Your task to perform on an android device: move a message to another label in the gmail app Image 0: 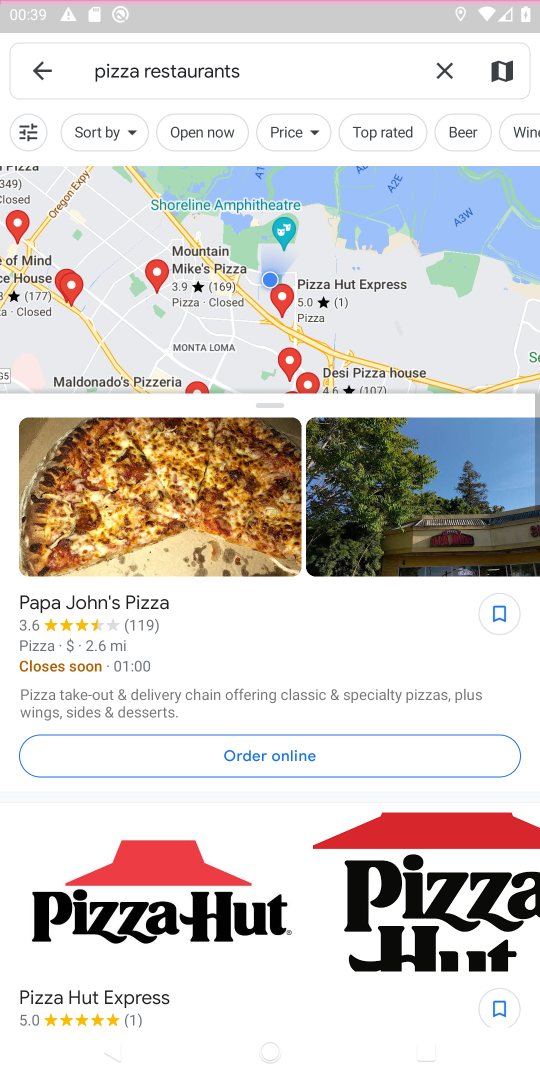
Step 0: press home button
Your task to perform on an android device: move a message to another label in the gmail app Image 1: 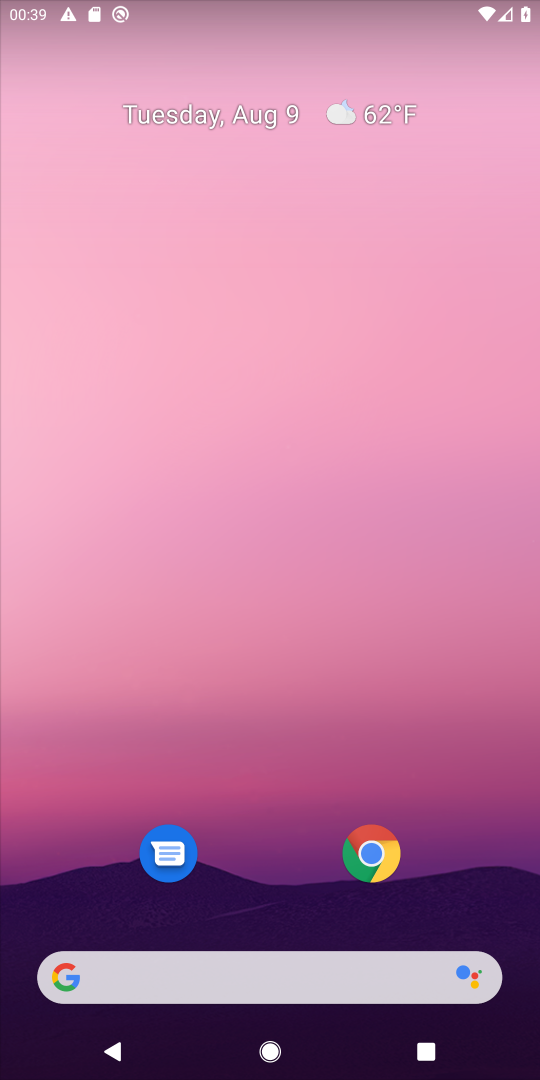
Step 1: drag from (277, 900) to (306, 90)
Your task to perform on an android device: move a message to another label in the gmail app Image 2: 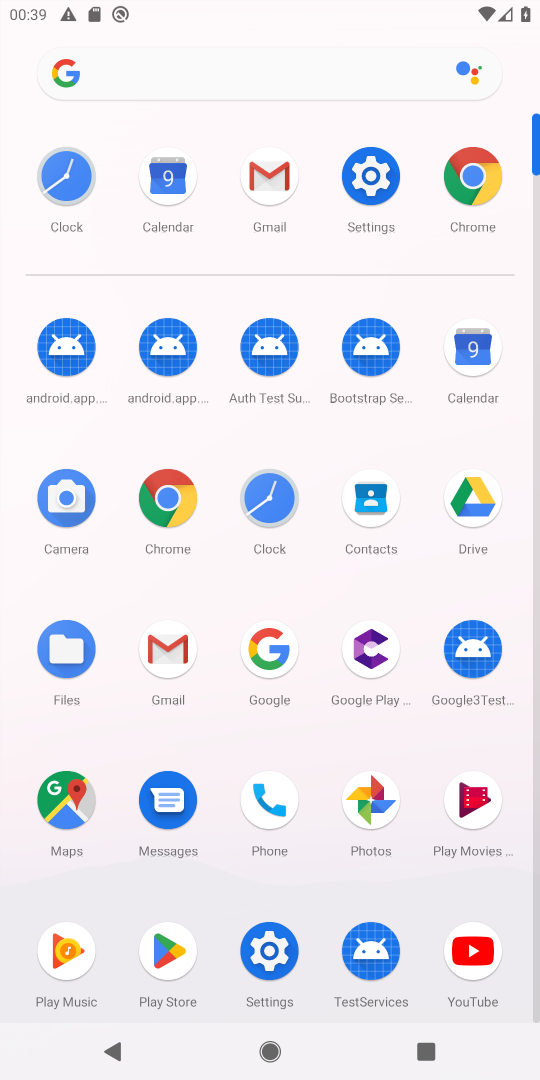
Step 2: click (161, 650)
Your task to perform on an android device: move a message to another label in the gmail app Image 3: 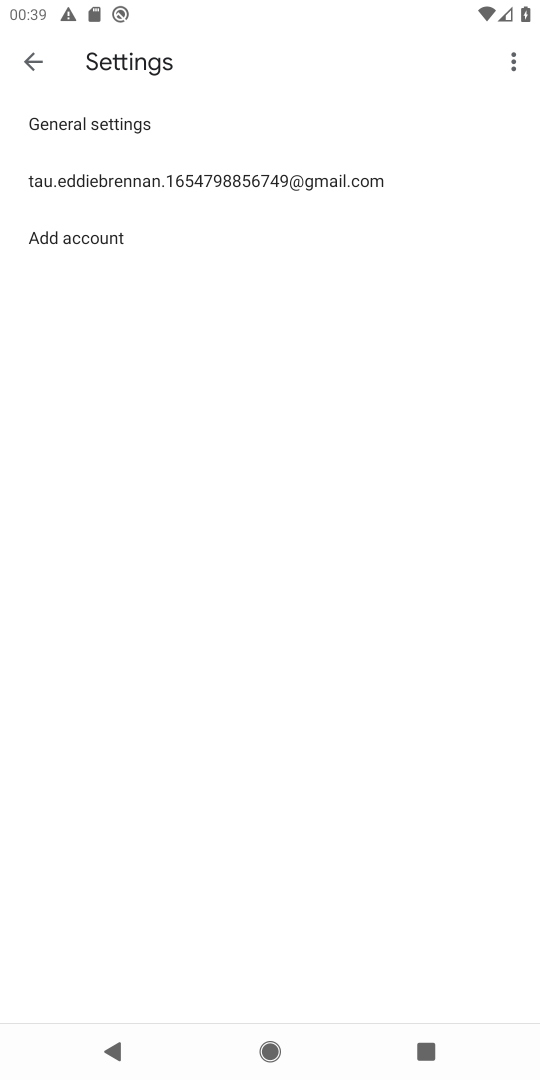
Step 3: click (21, 68)
Your task to perform on an android device: move a message to another label in the gmail app Image 4: 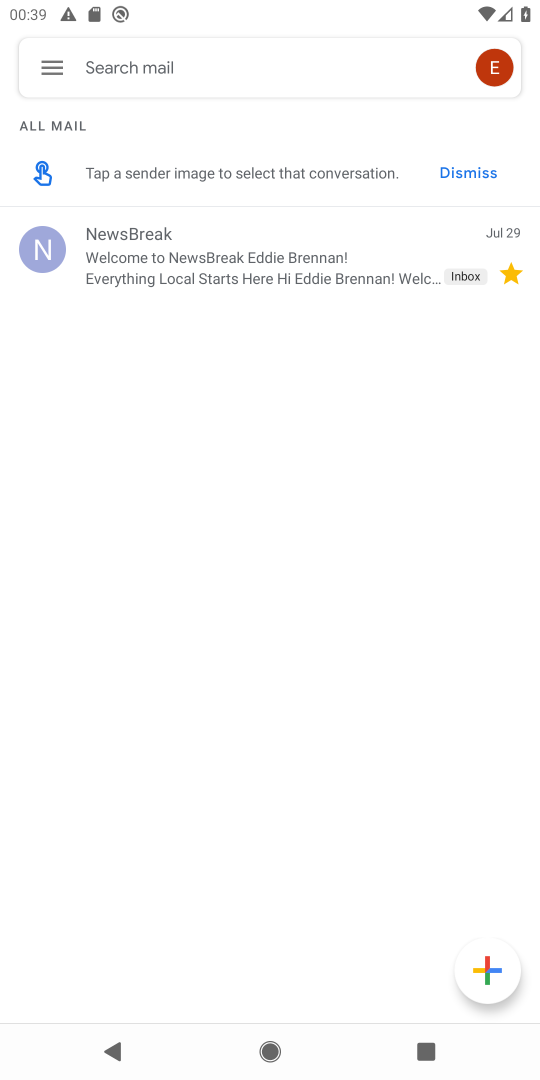
Step 4: click (216, 235)
Your task to perform on an android device: move a message to another label in the gmail app Image 5: 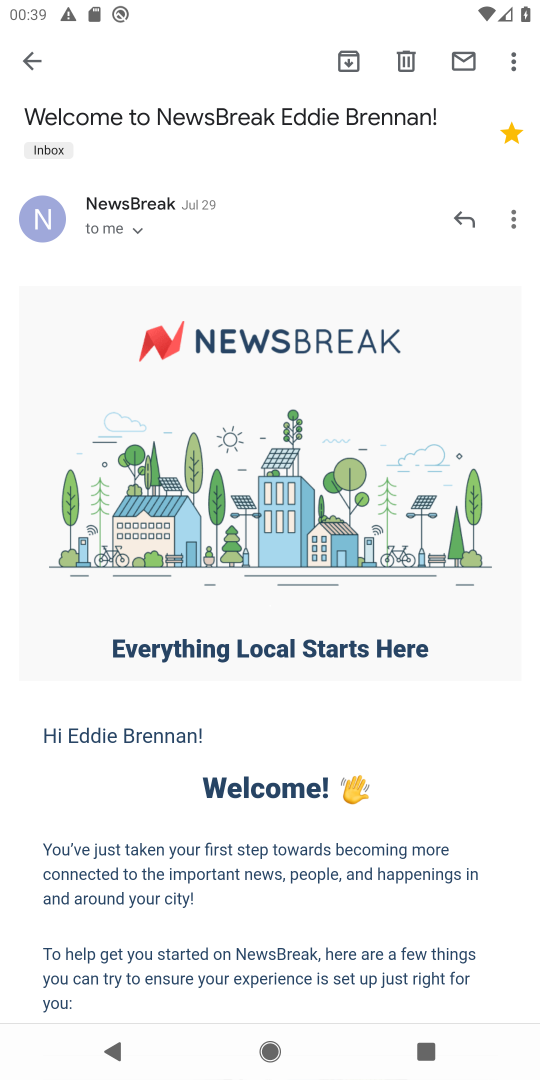
Step 5: click (511, 54)
Your task to perform on an android device: move a message to another label in the gmail app Image 6: 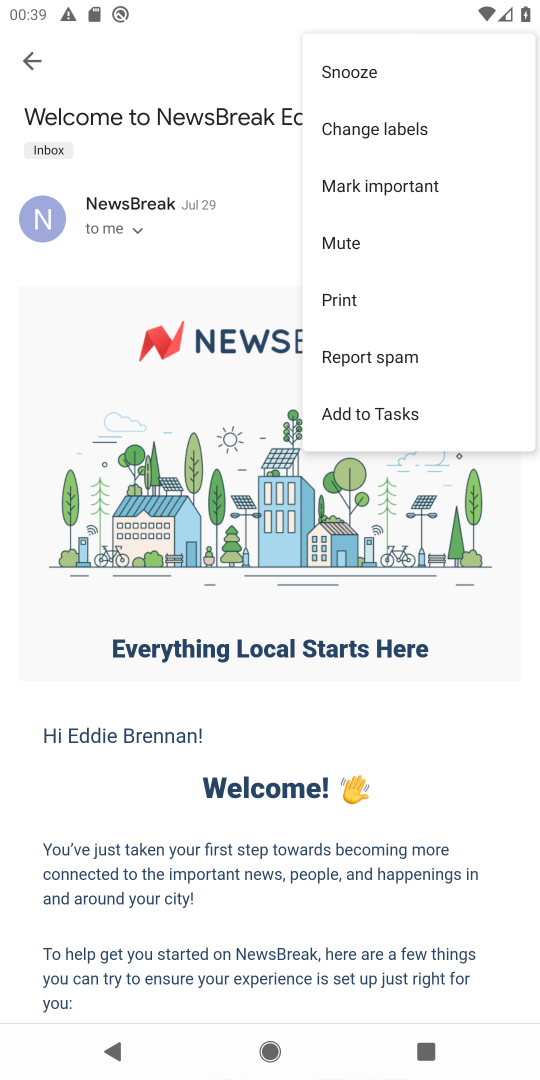
Step 6: click (394, 134)
Your task to perform on an android device: move a message to another label in the gmail app Image 7: 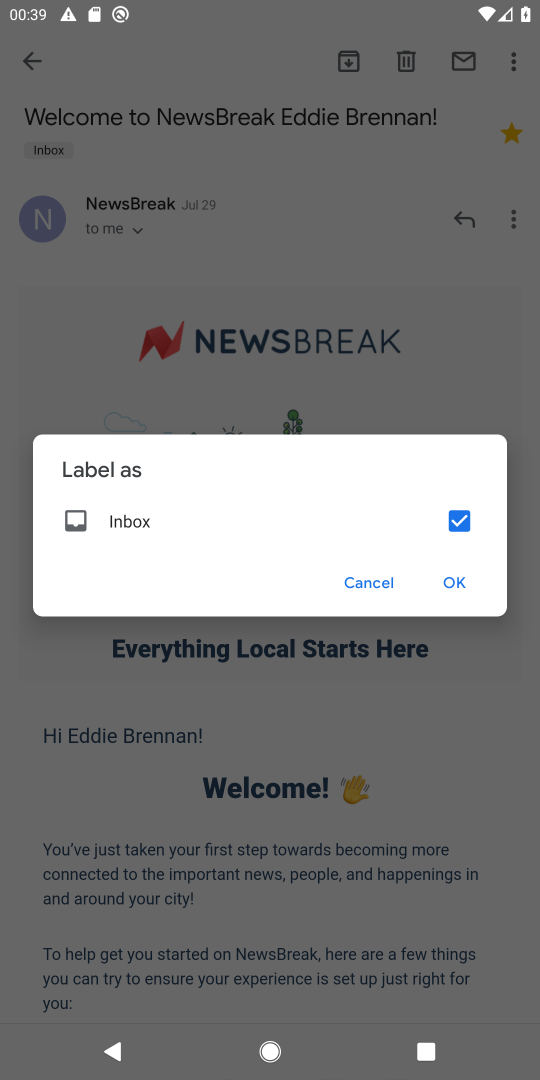
Step 7: click (473, 521)
Your task to perform on an android device: move a message to another label in the gmail app Image 8: 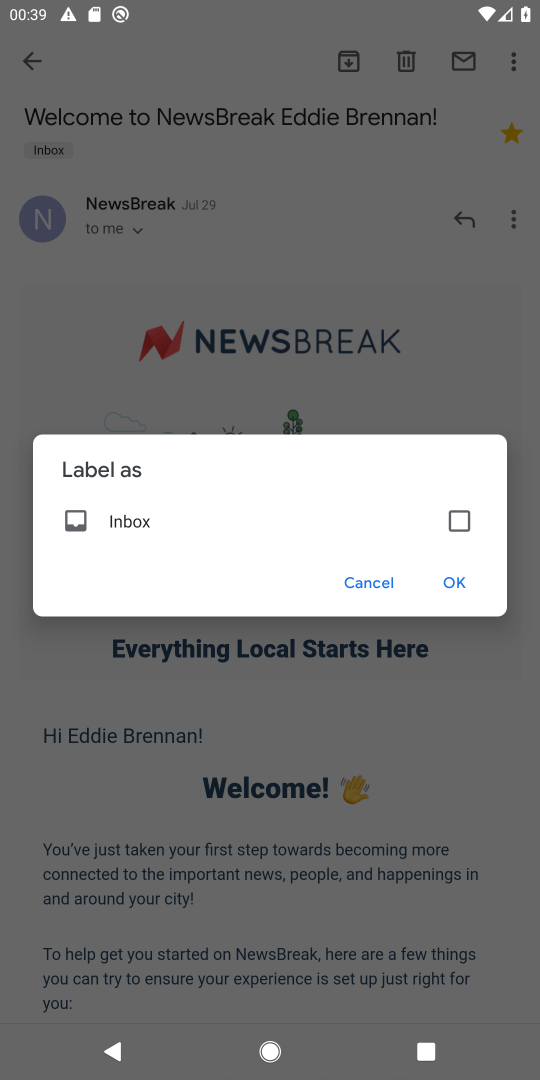
Step 8: click (445, 585)
Your task to perform on an android device: move a message to another label in the gmail app Image 9: 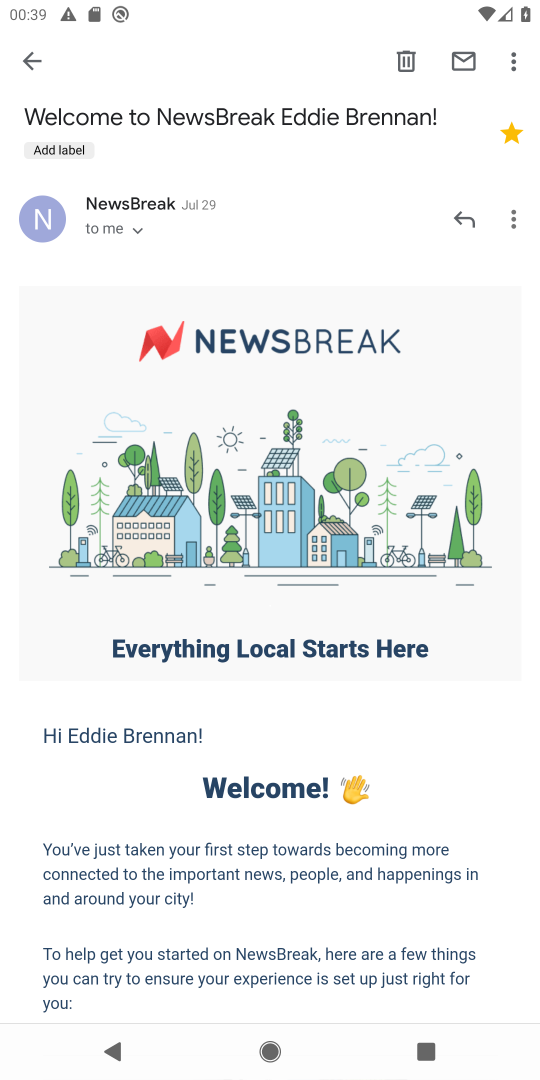
Step 9: task complete